Your task to perform on an android device: Go to Android settings Image 0: 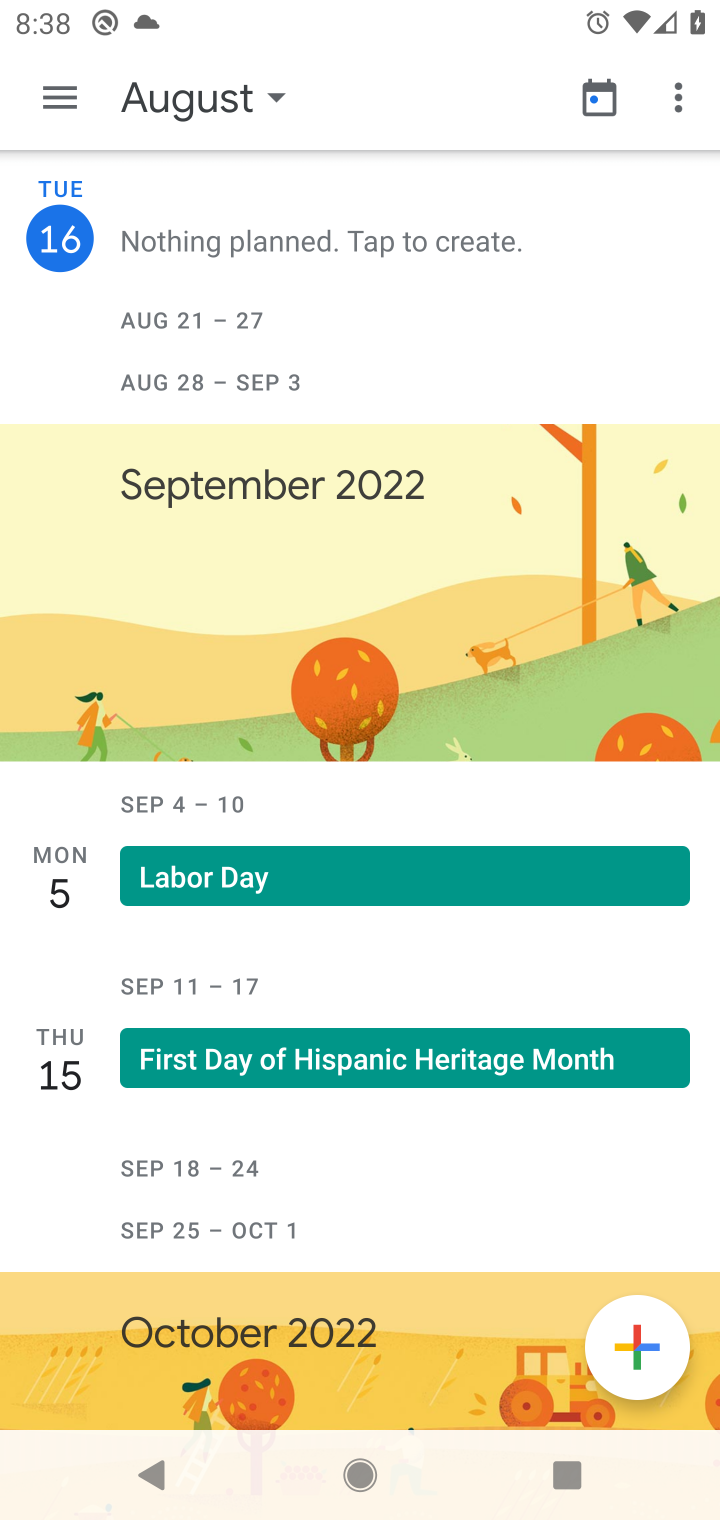
Step 0: press home button
Your task to perform on an android device: Go to Android settings Image 1: 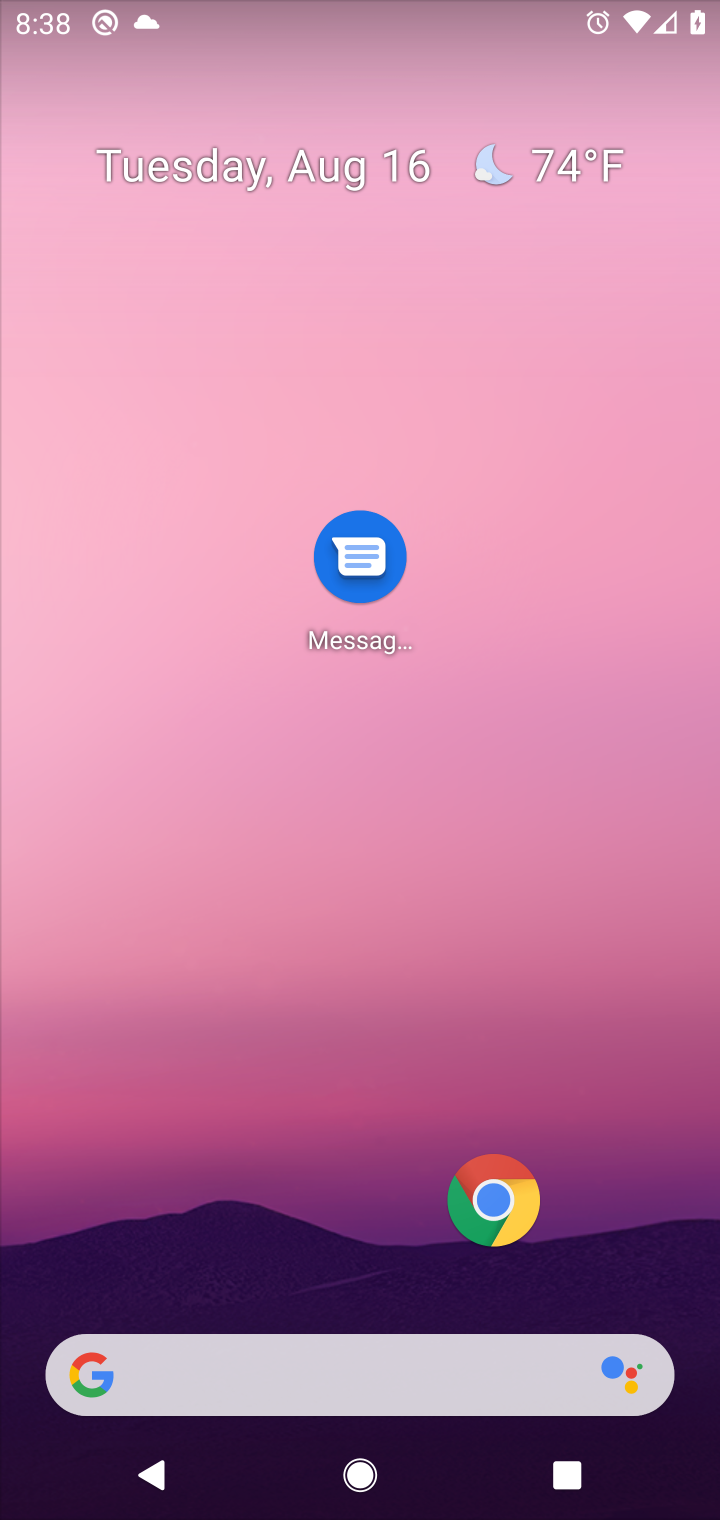
Step 1: drag from (70, 1474) to (456, 414)
Your task to perform on an android device: Go to Android settings Image 2: 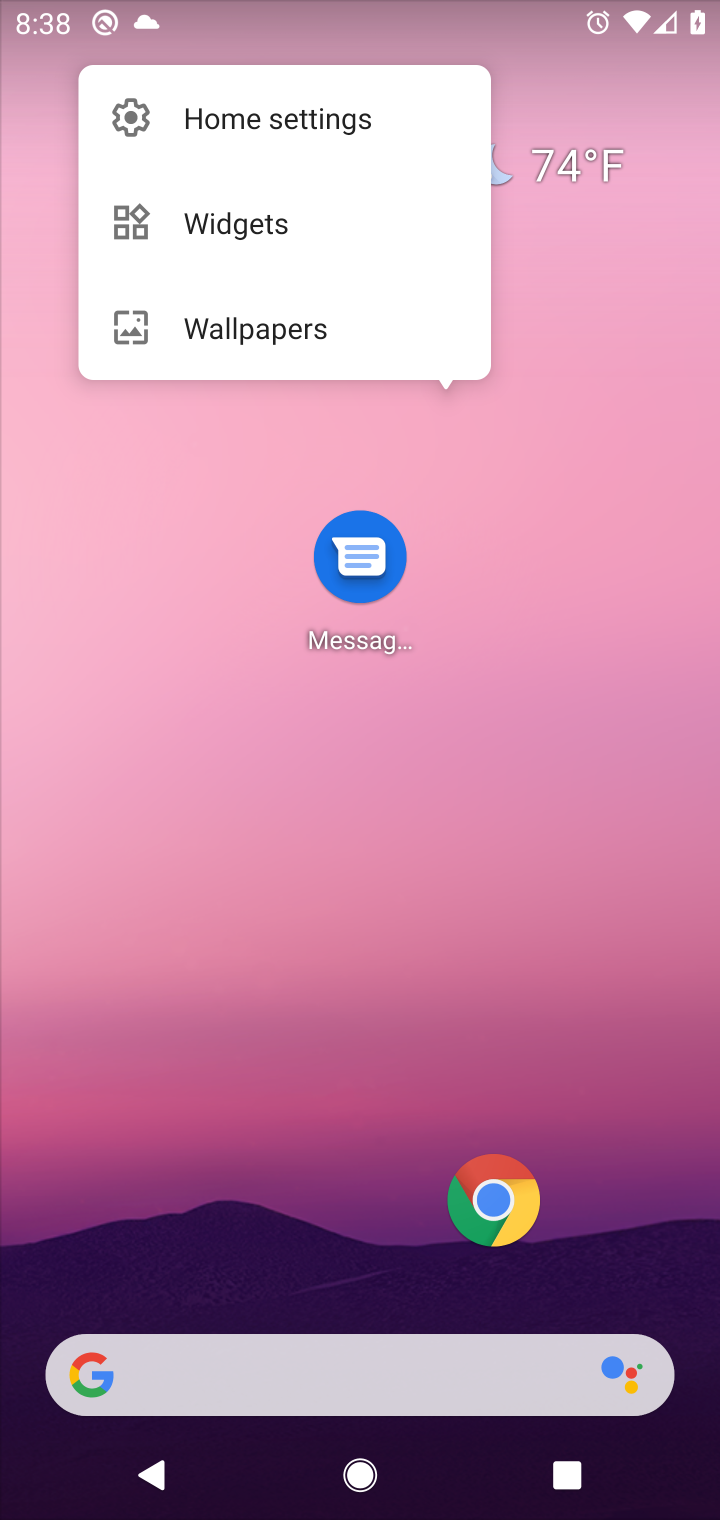
Step 2: drag from (35, 1472) to (556, 387)
Your task to perform on an android device: Go to Android settings Image 3: 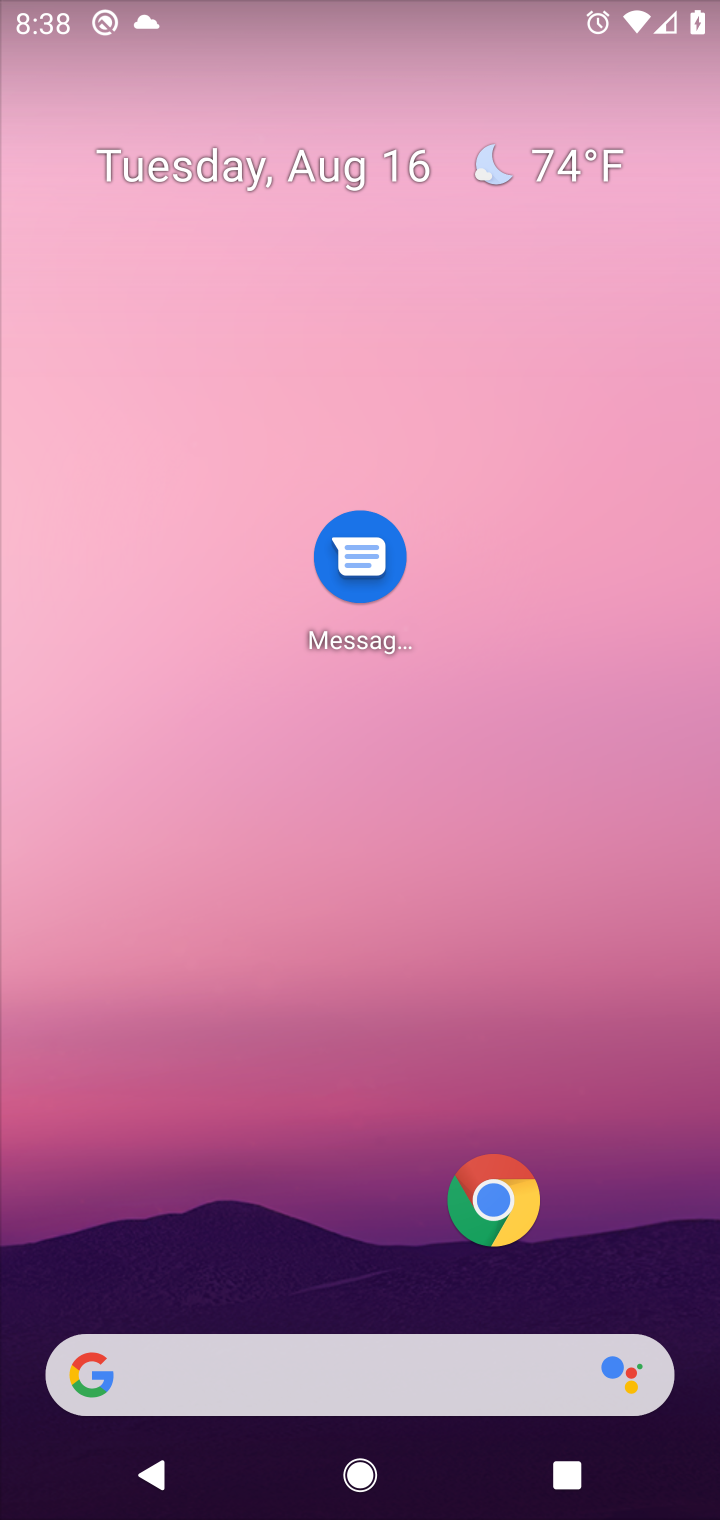
Step 3: drag from (278, 1191) to (488, 446)
Your task to perform on an android device: Go to Android settings Image 4: 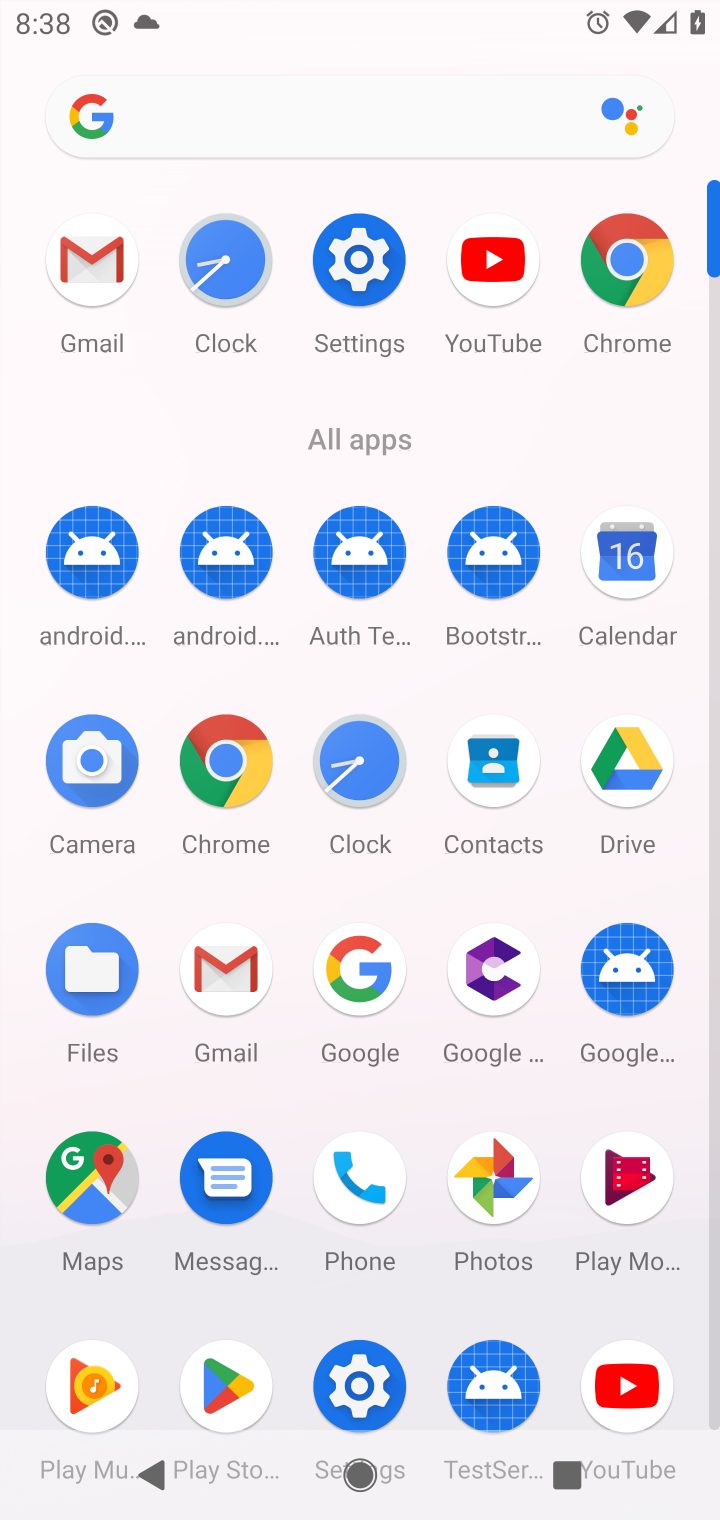
Step 4: click (345, 1393)
Your task to perform on an android device: Go to Android settings Image 5: 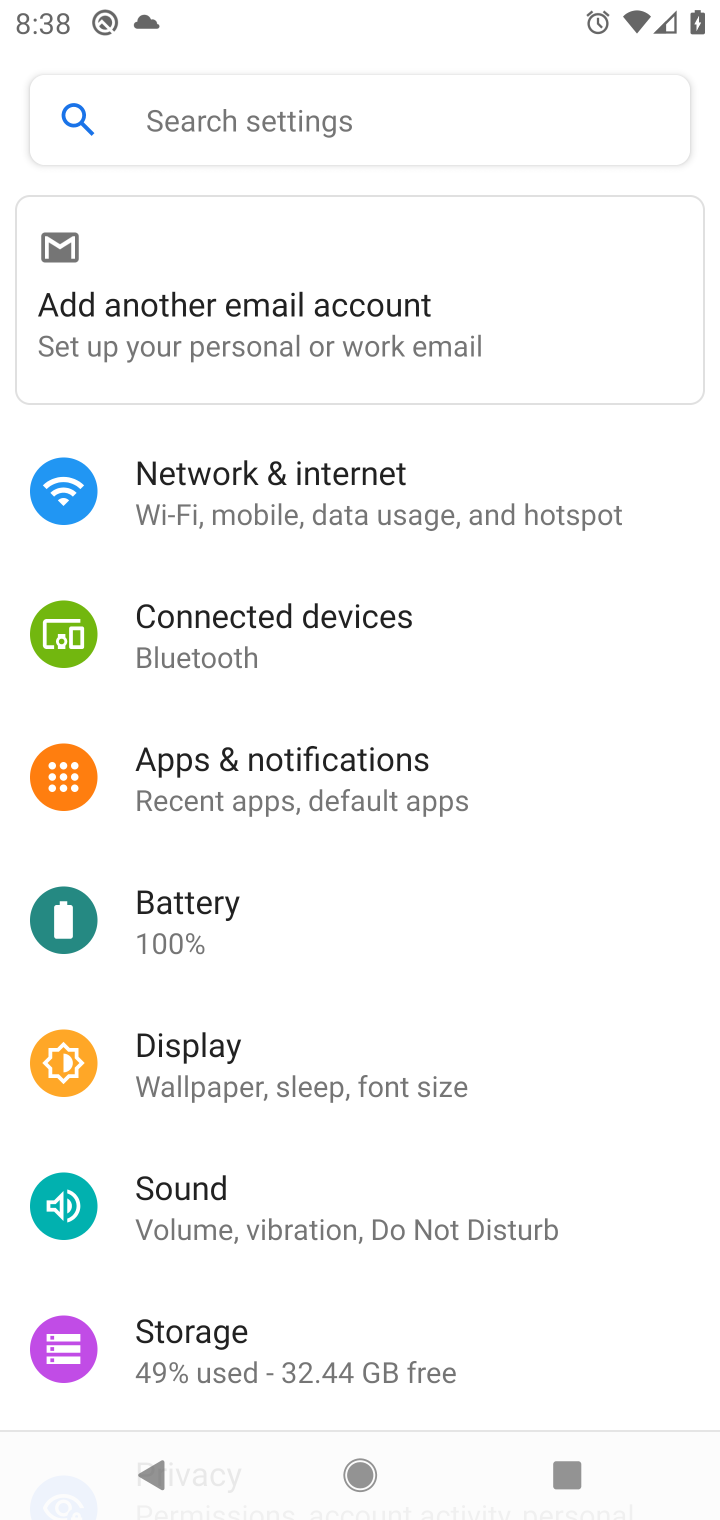
Step 5: drag from (604, 1380) to (493, 215)
Your task to perform on an android device: Go to Android settings Image 6: 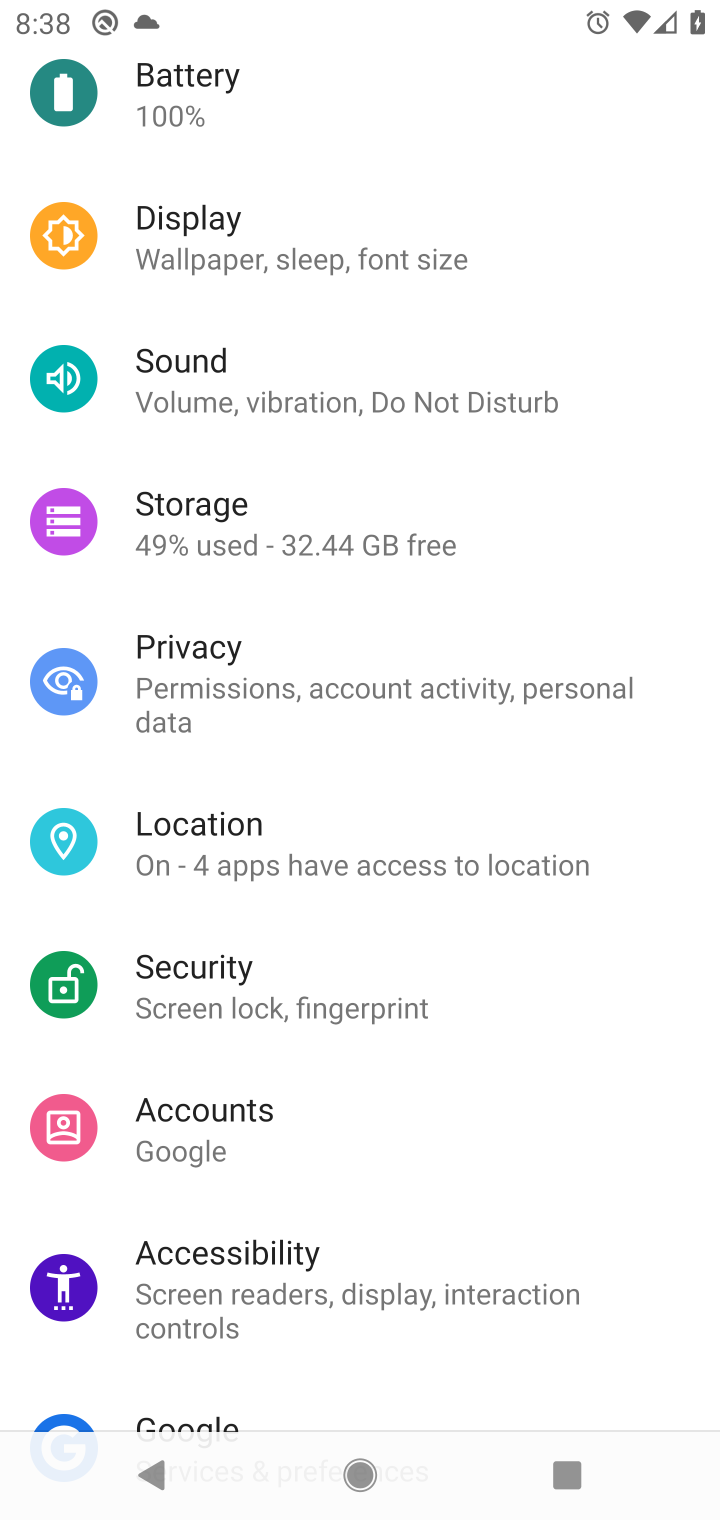
Step 6: drag from (651, 1381) to (557, 608)
Your task to perform on an android device: Go to Android settings Image 7: 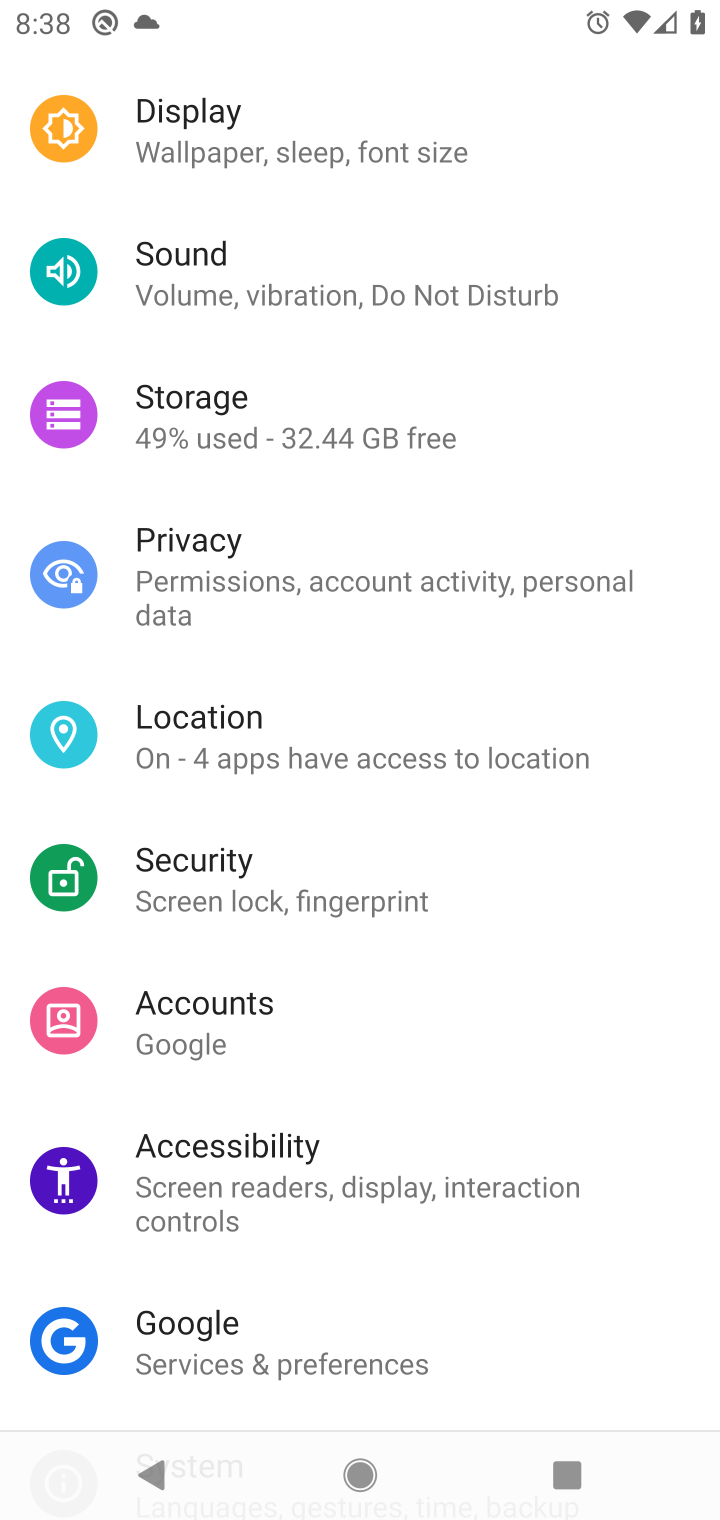
Step 7: drag from (636, 1320) to (649, 278)
Your task to perform on an android device: Go to Android settings Image 8: 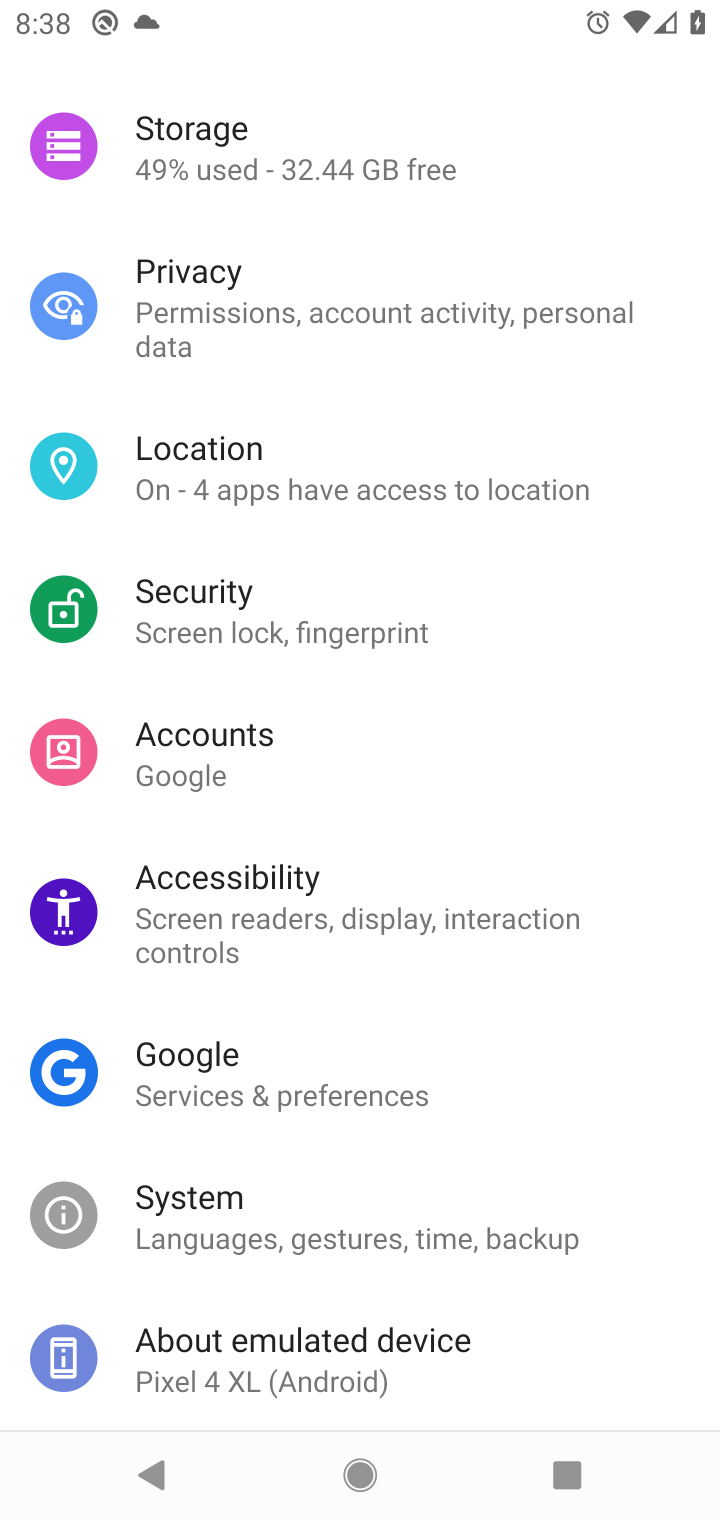
Step 8: click (310, 1372)
Your task to perform on an android device: Go to Android settings Image 9: 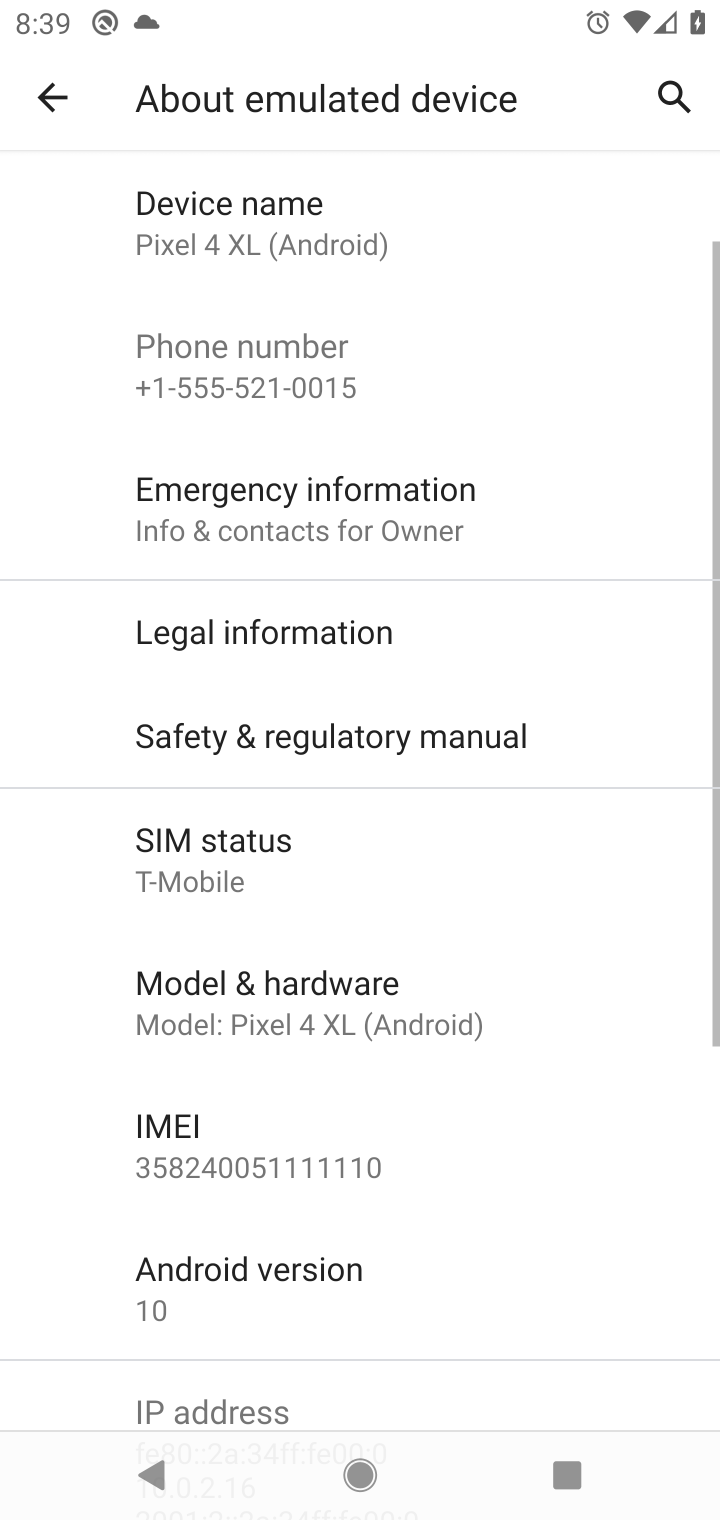
Step 9: click (279, 1297)
Your task to perform on an android device: Go to Android settings Image 10: 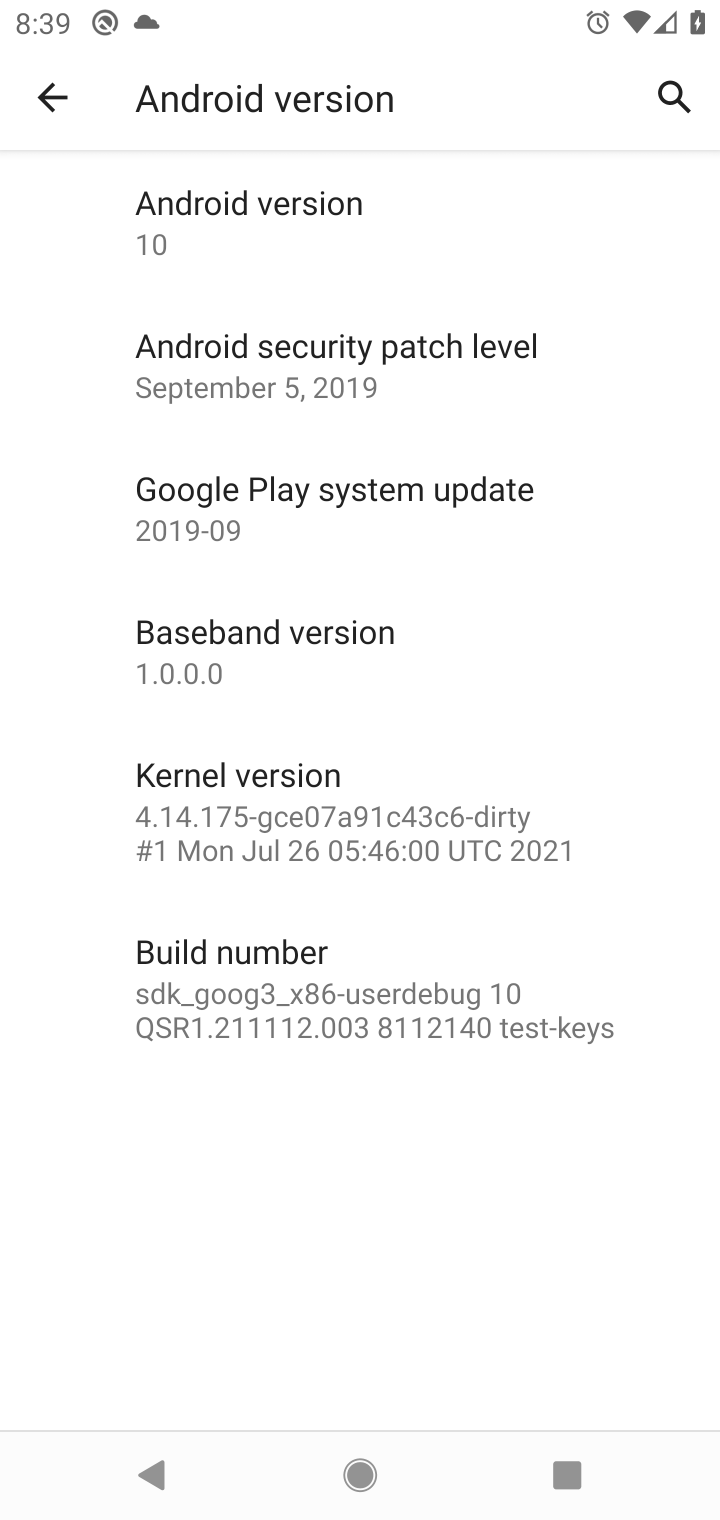
Step 10: task complete